Your task to perform on an android device: turn on bluetooth scan Image 0: 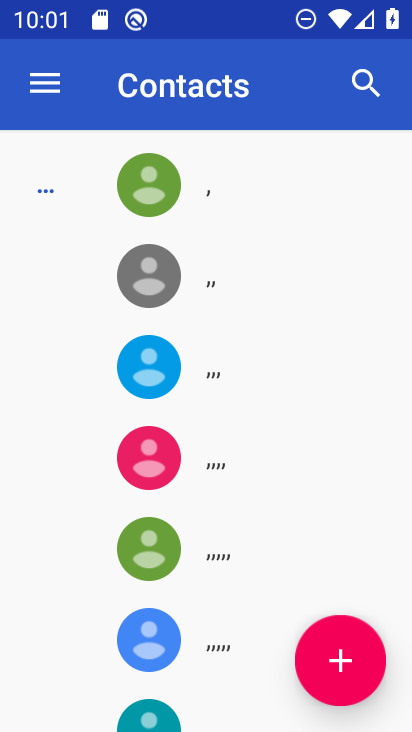
Step 0: press home button
Your task to perform on an android device: turn on bluetooth scan Image 1: 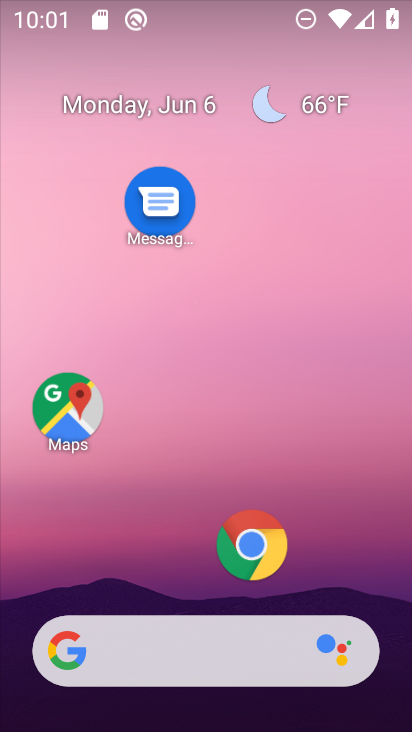
Step 1: drag from (180, 579) to (247, 182)
Your task to perform on an android device: turn on bluetooth scan Image 2: 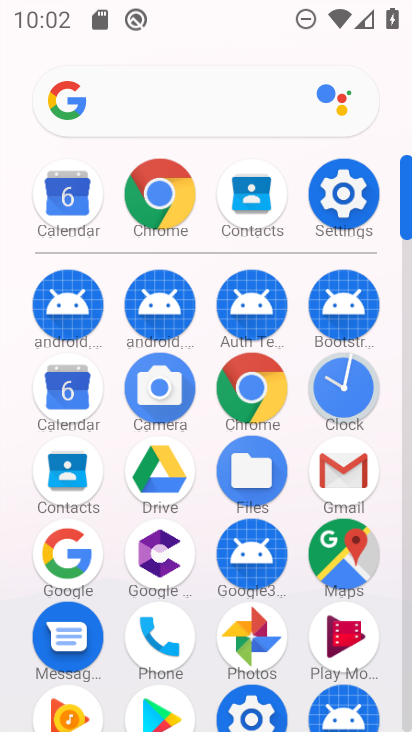
Step 2: click (342, 194)
Your task to perform on an android device: turn on bluetooth scan Image 3: 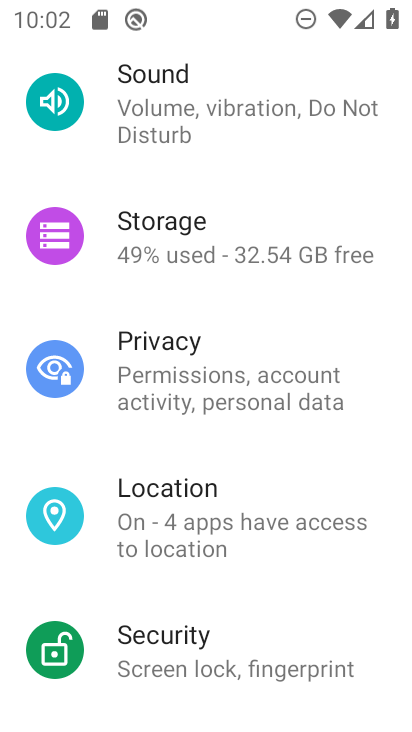
Step 3: click (243, 498)
Your task to perform on an android device: turn on bluetooth scan Image 4: 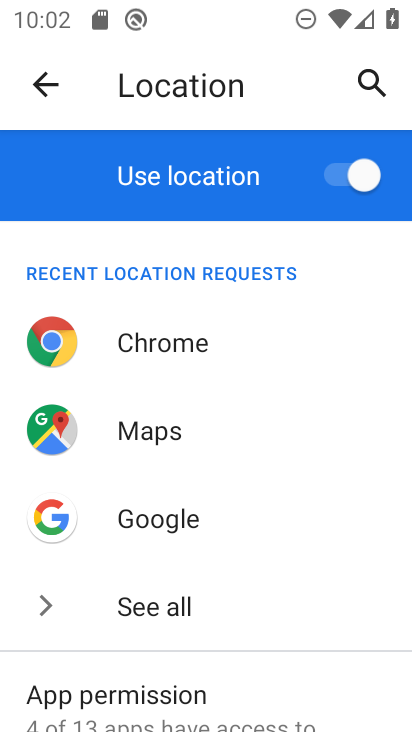
Step 4: drag from (225, 695) to (315, 291)
Your task to perform on an android device: turn on bluetooth scan Image 5: 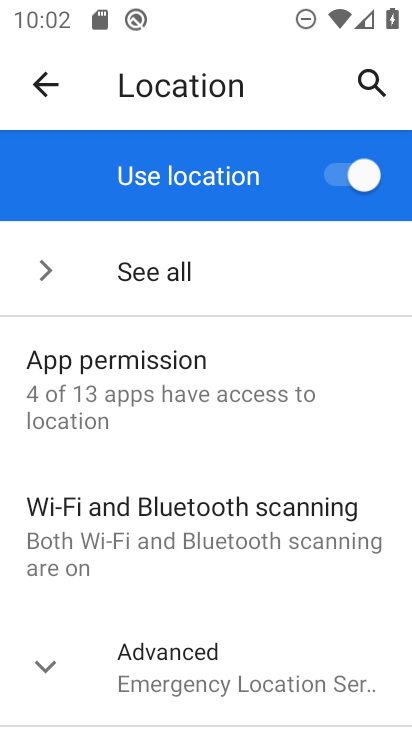
Step 5: click (207, 534)
Your task to perform on an android device: turn on bluetooth scan Image 6: 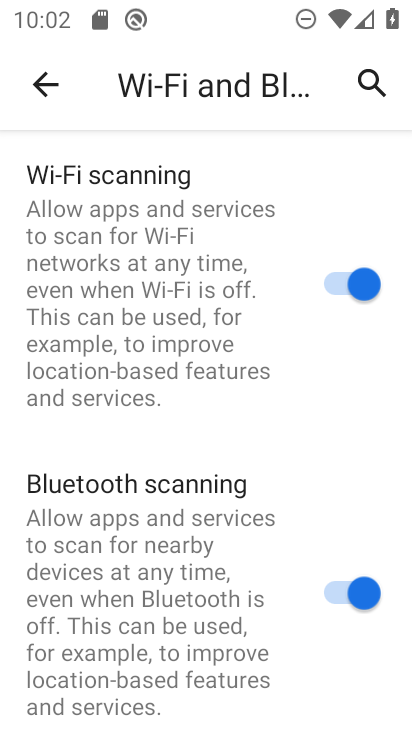
Step 6: task complete